Your task to perform on an android device: turn off airplane mode Image 0: 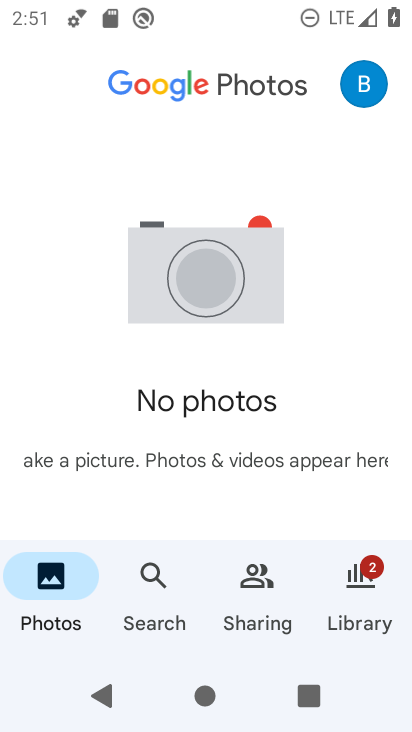
Step 0: press home button
Your task to perform on an android device: turn off airplane mode Image 1: 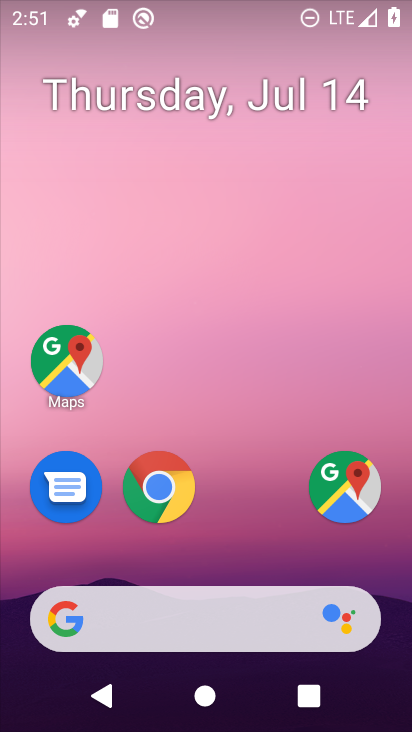
Step 1: drag from (215, 468) to (209, 59)
Your task to perform on an android device: turn off airplane mode Image 2: 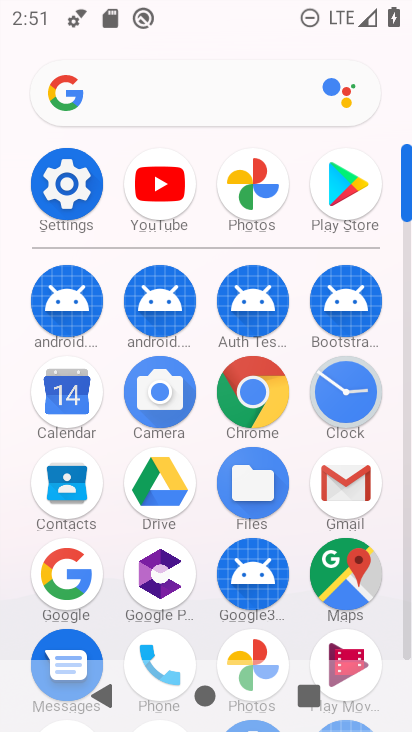
Step 2: click (78, 203)
Your task to perform on an android device: turn off airplane mode Image 3: 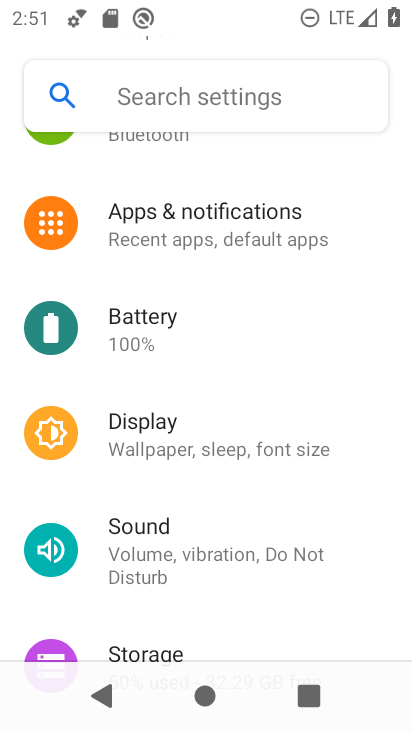
Step 3: drag from (350, 307) to (330, 346)
Your task to perform on an android device: turn off airplane mode Image 4: 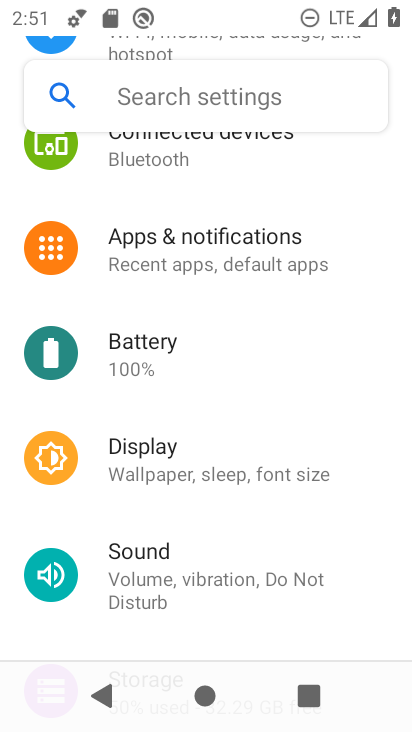
Step 4: drag from (345, 303) to (336, 346)
Your task to perform on an android device: turn off airplane mode Image 5: 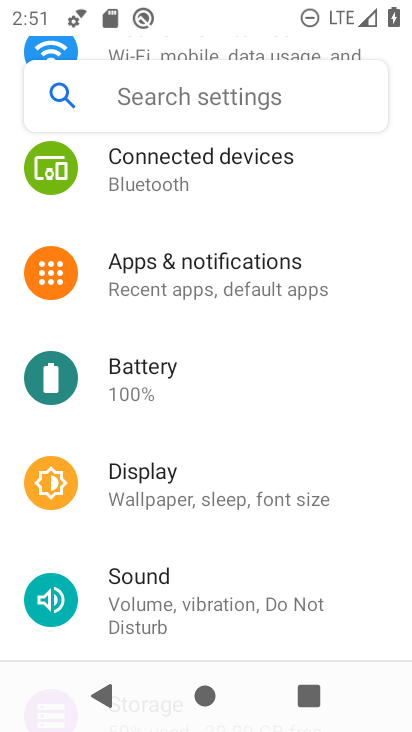
Step 5: drag from (349, 269) to (340, 337)
Your task to perform on an android device: turn off airplane mode Image 6: 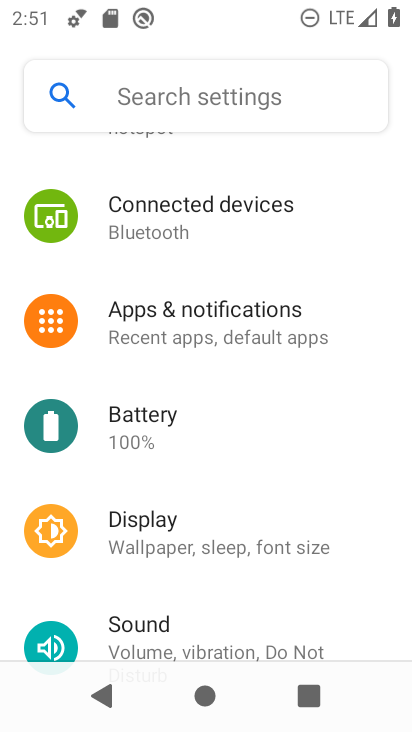
Step 6: drag from (346, 282) to (347, 326)
Your task to perform on an android device: turn off airplane mode Image 7: 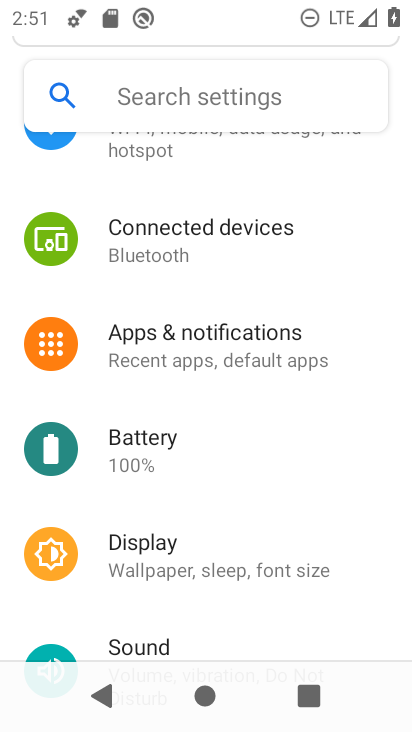
Step 7: drag from (354, 276) to (358, 354)
Your task to perform on an android device: turn off airplane mode Image 8: 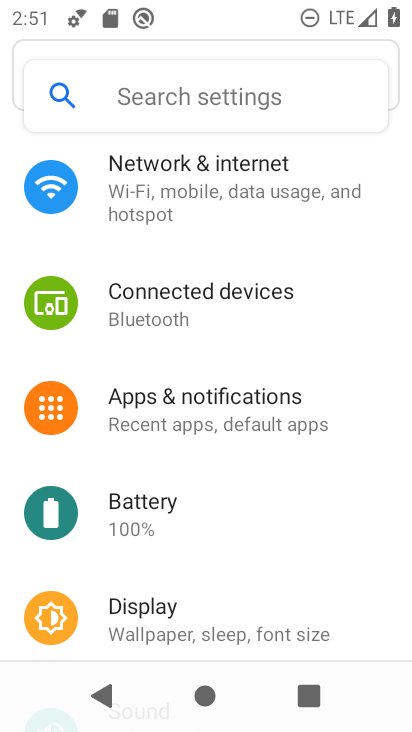
Step 8: drag from (356, 293) to (351, 373)
Your task to perform on an android device: turn off airplane mode Image 9: 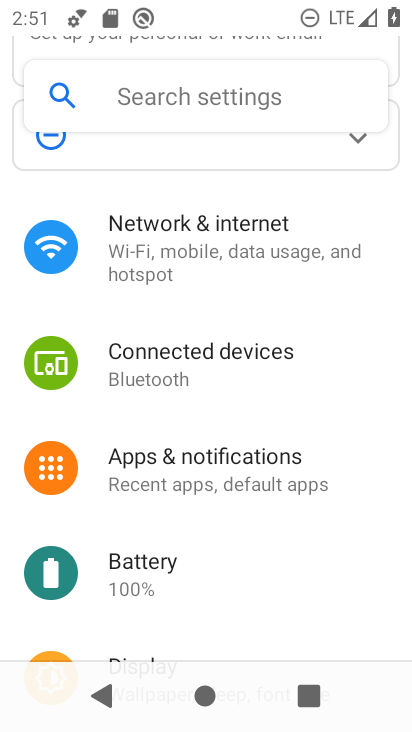
Step 9: drag from (347, 318) to (347, 394)
Your task to perform on an android device: turn off airplane mode Image 10: 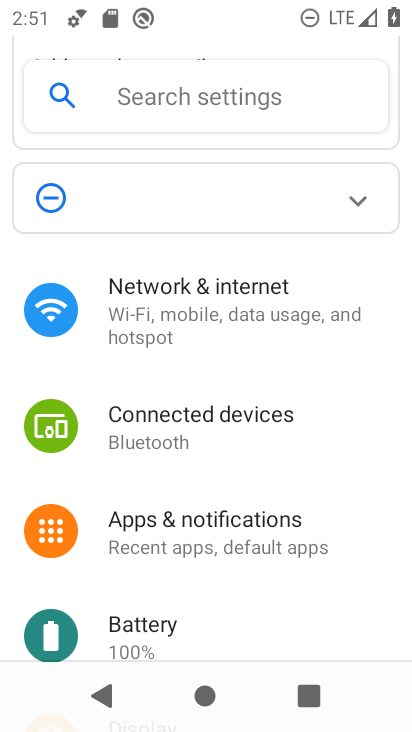
Step 10: click (336, 315)
Your task to perform on an android device: turn off airplane mode Image 11: 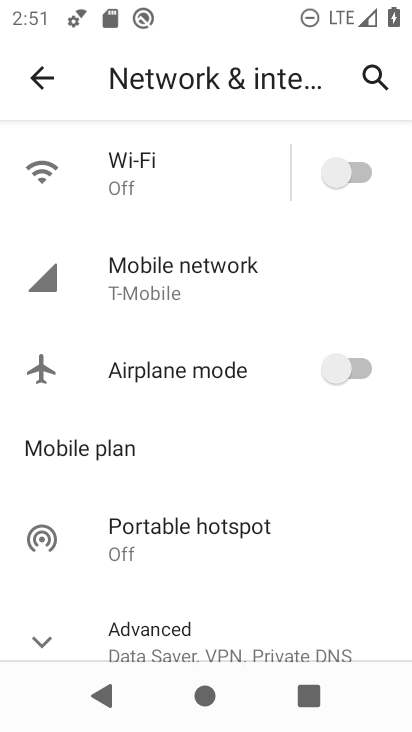
Step 11: task complete